Your task to perform on an android device: Add "panasonic triple a" to the cart on walmart.com Image 0: 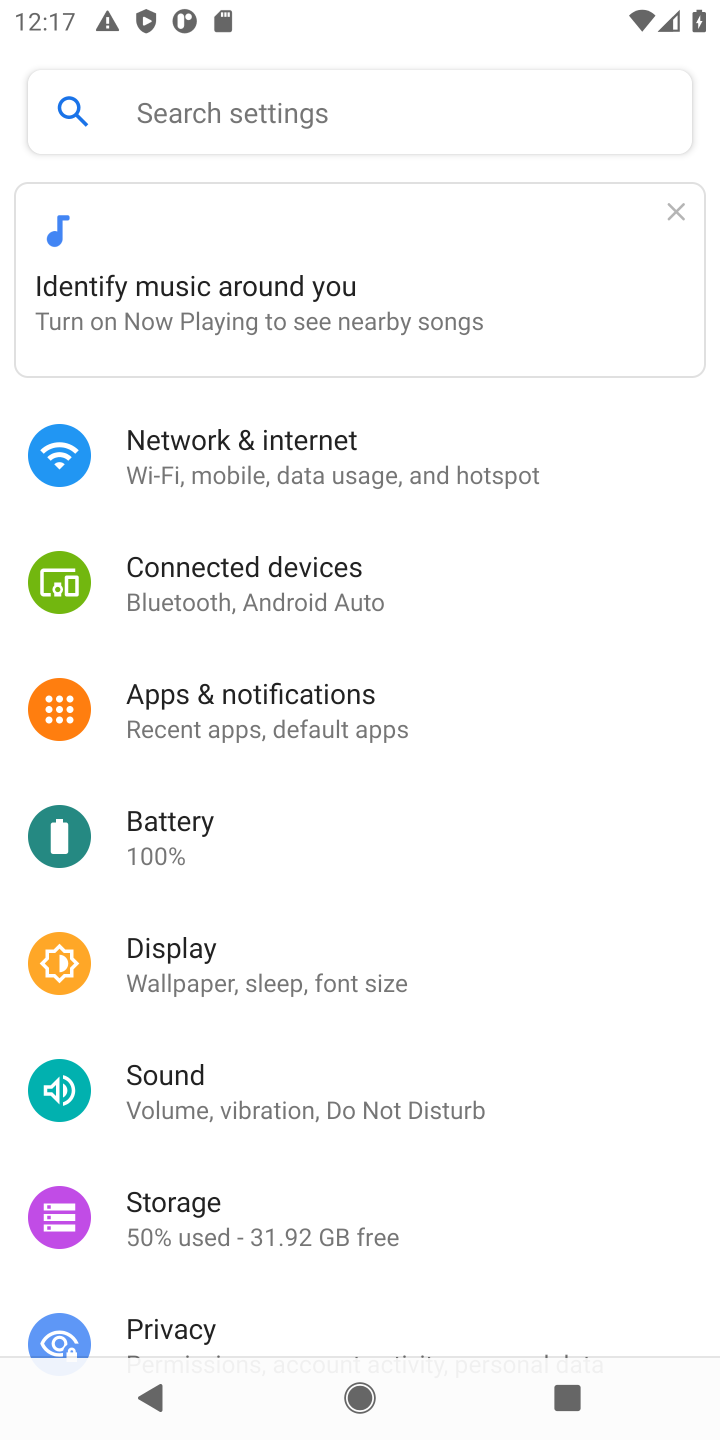
Step 0: press home button
Your task to perform on an android device: Add "panasonic triple a" to the cart on walmart.com Image 1: 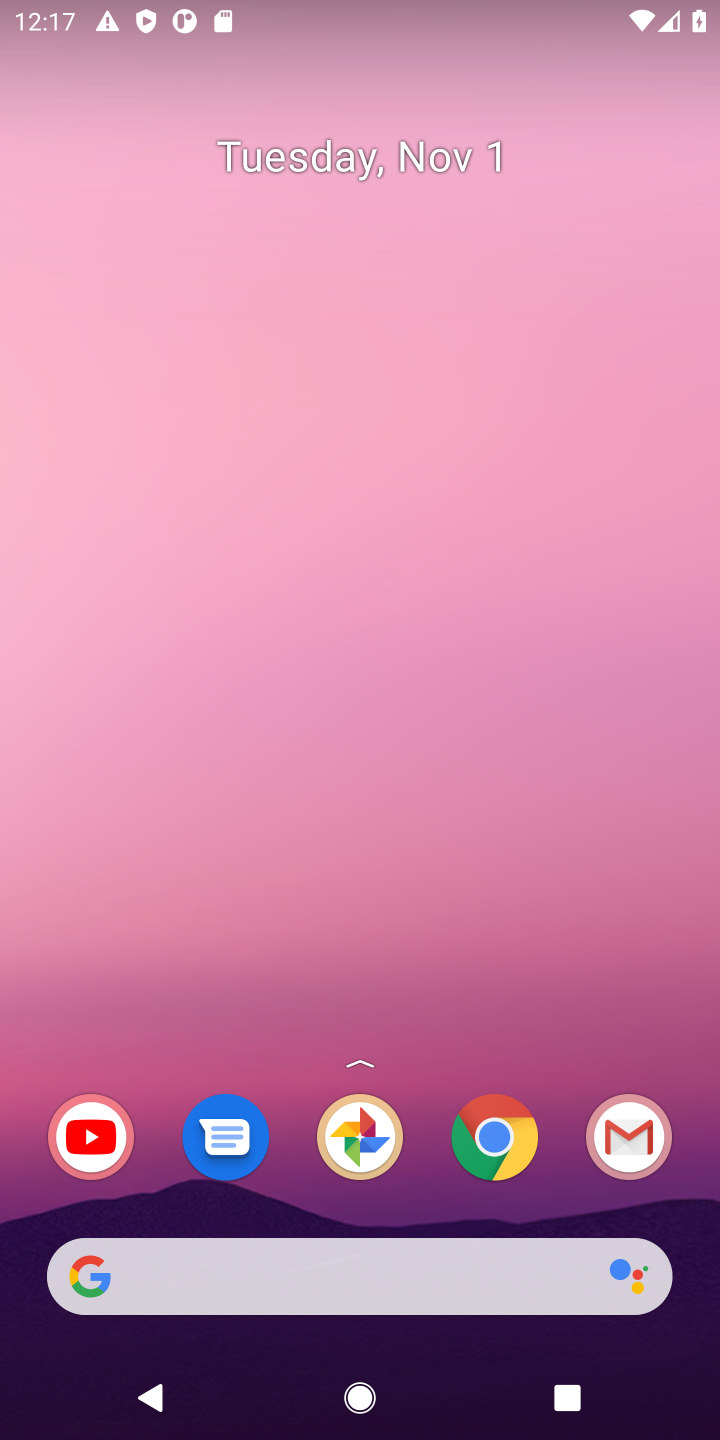
Step 1: click (493, 1139)
Your task to perform on an android device: Add "panasonic triple a" to the cart on walmart.com Image 2: 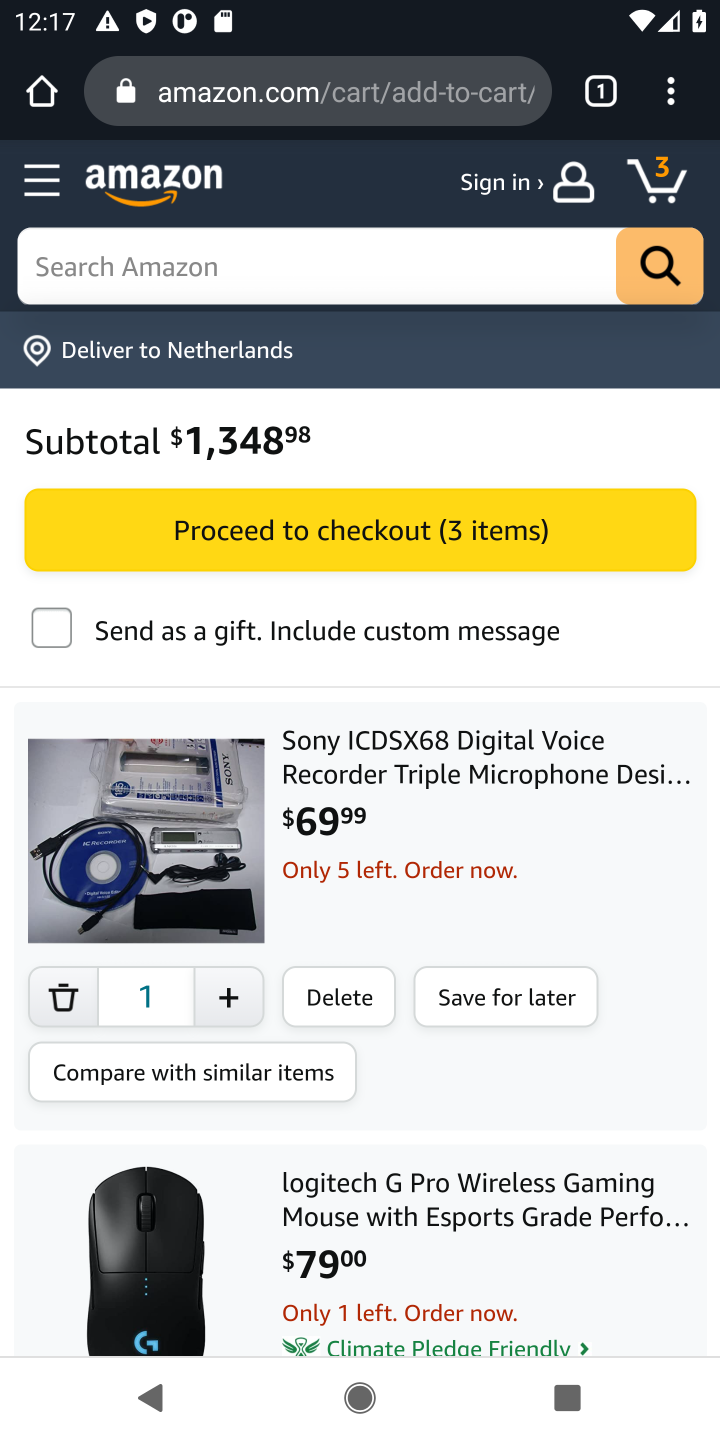
Step 2: click (339, 102)
Your task to perform on an android device: Add "panasonic triple a" to the cart on walmart.com Image 3: 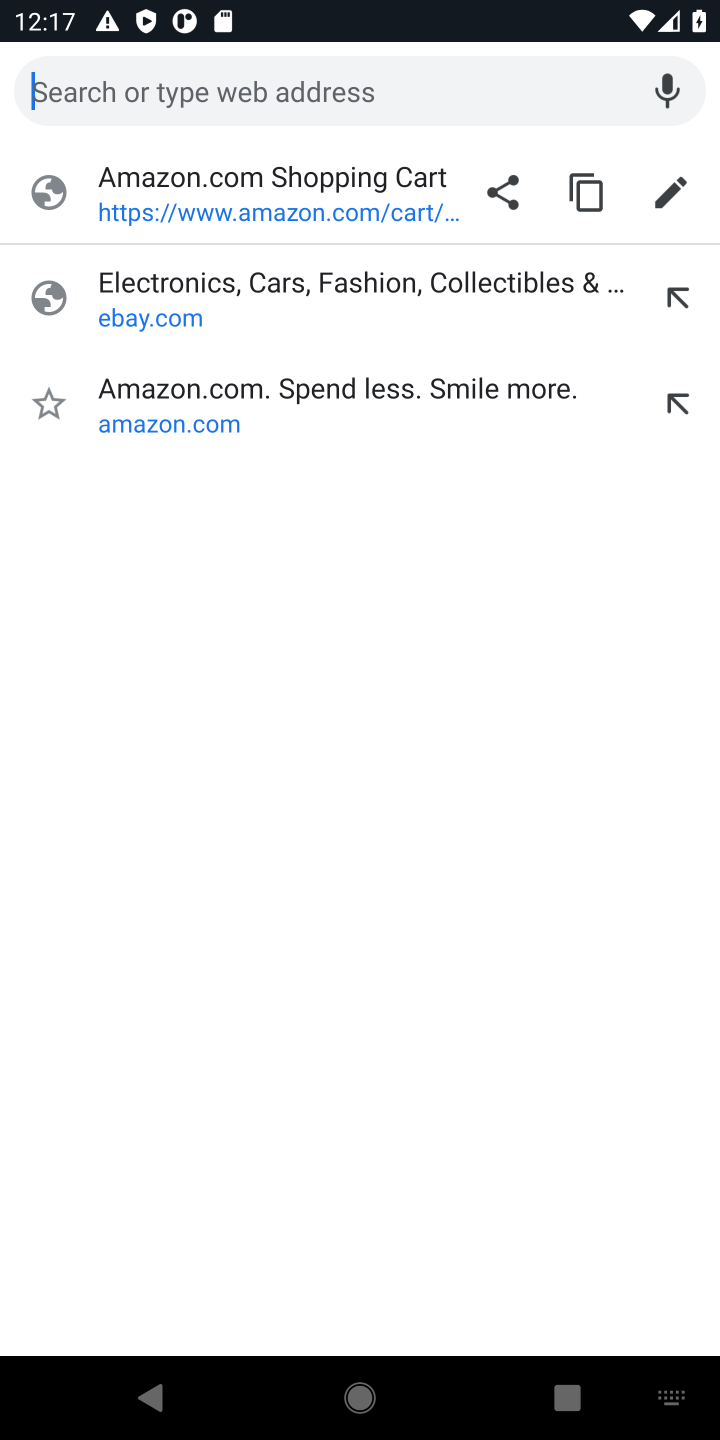
Step 3: type "walmart.com"
Your task to perform on an android device: Add "panasonic triple a" to the cart on walmart.com Image 4: 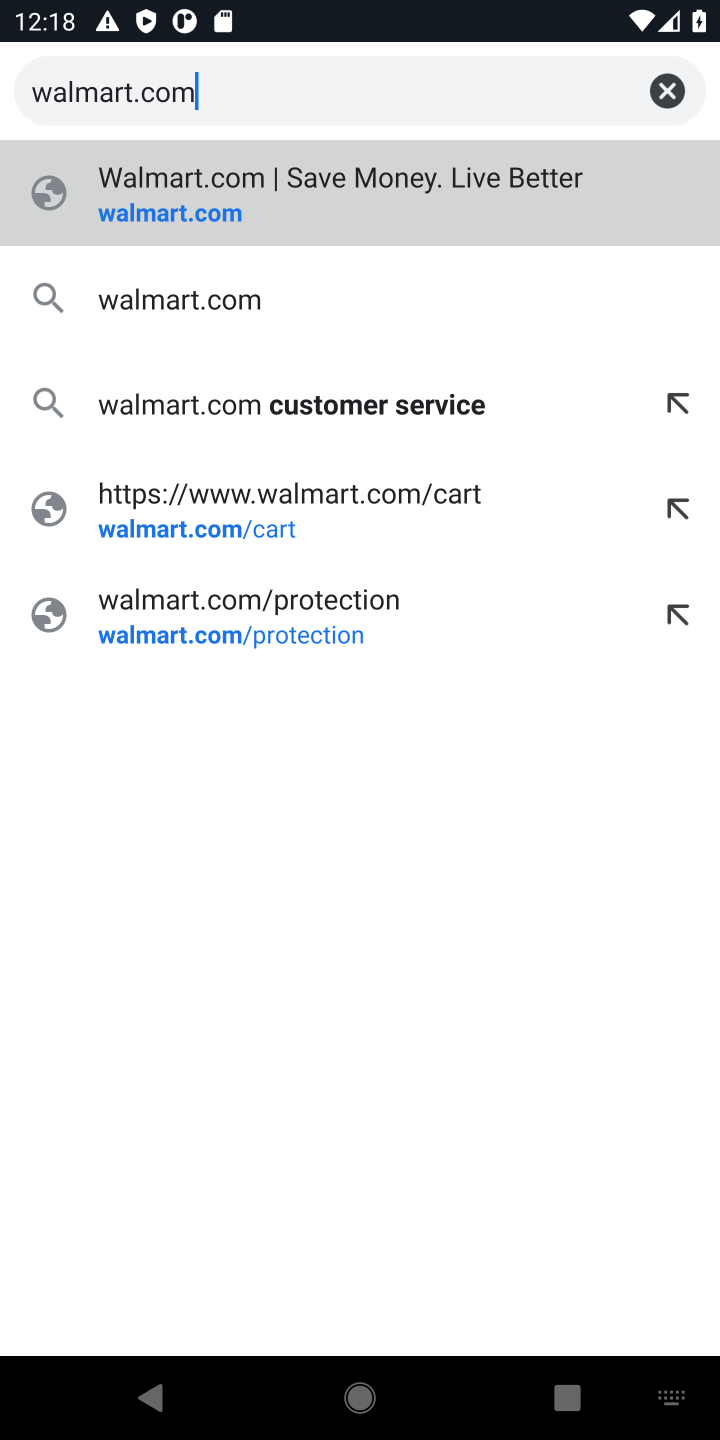
Step 4: click (163, 299)
Your task to perform on an android device: Add "panasonic triple a" to the cart on walmart.com Image 5: 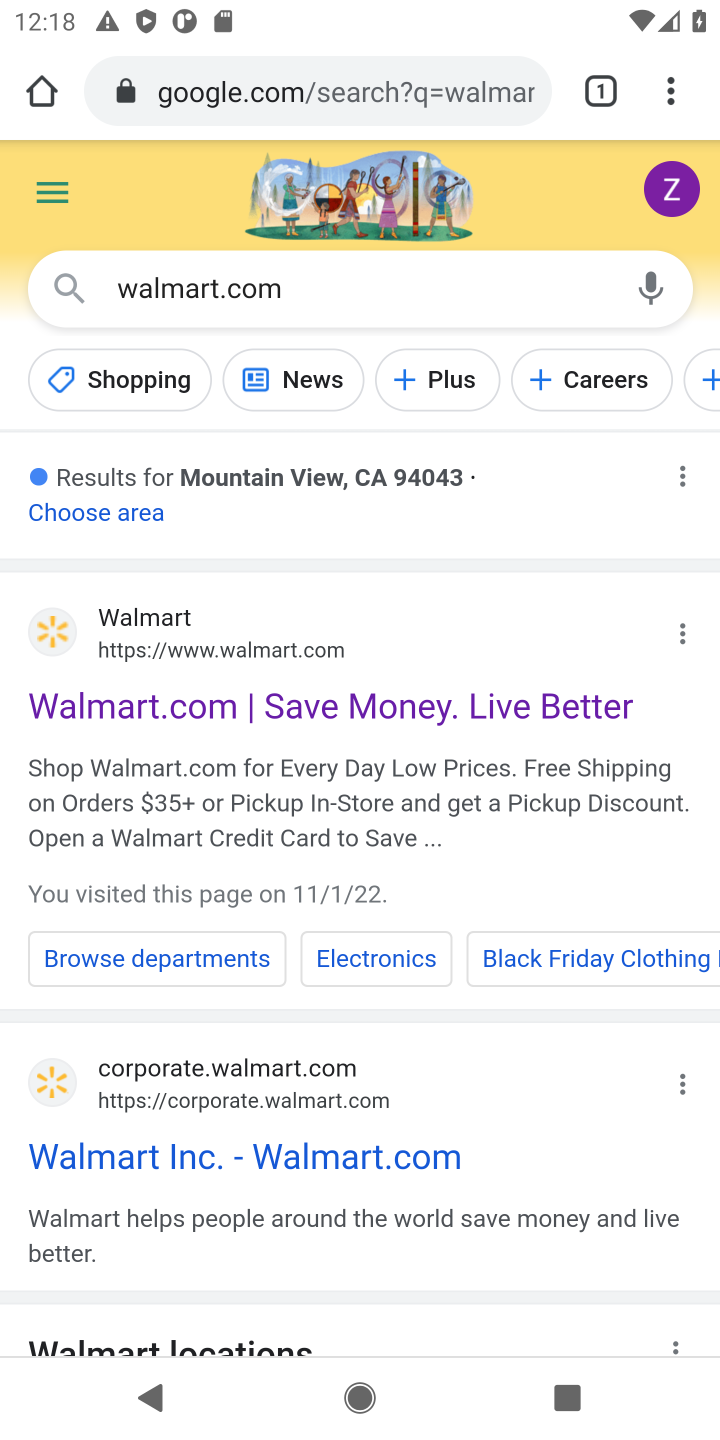
Step 5: click (208, 689)
Your task to perform on an android device: Add "panasonic triple a" to the cart on walmart.com Image 6: 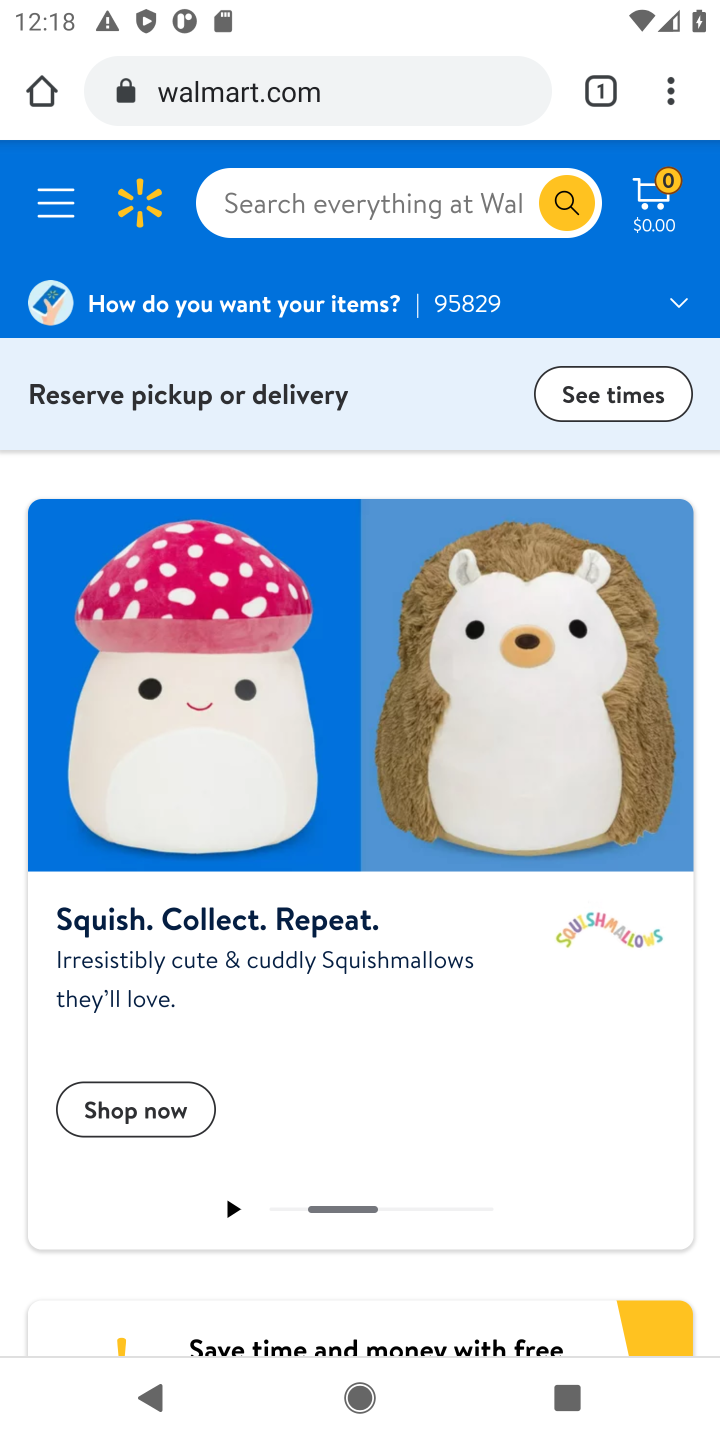
Step 6: click (326, 209)
Your task to perform on an android device: Add "panasonic triple a" to the cart on walmart.com Image 7: 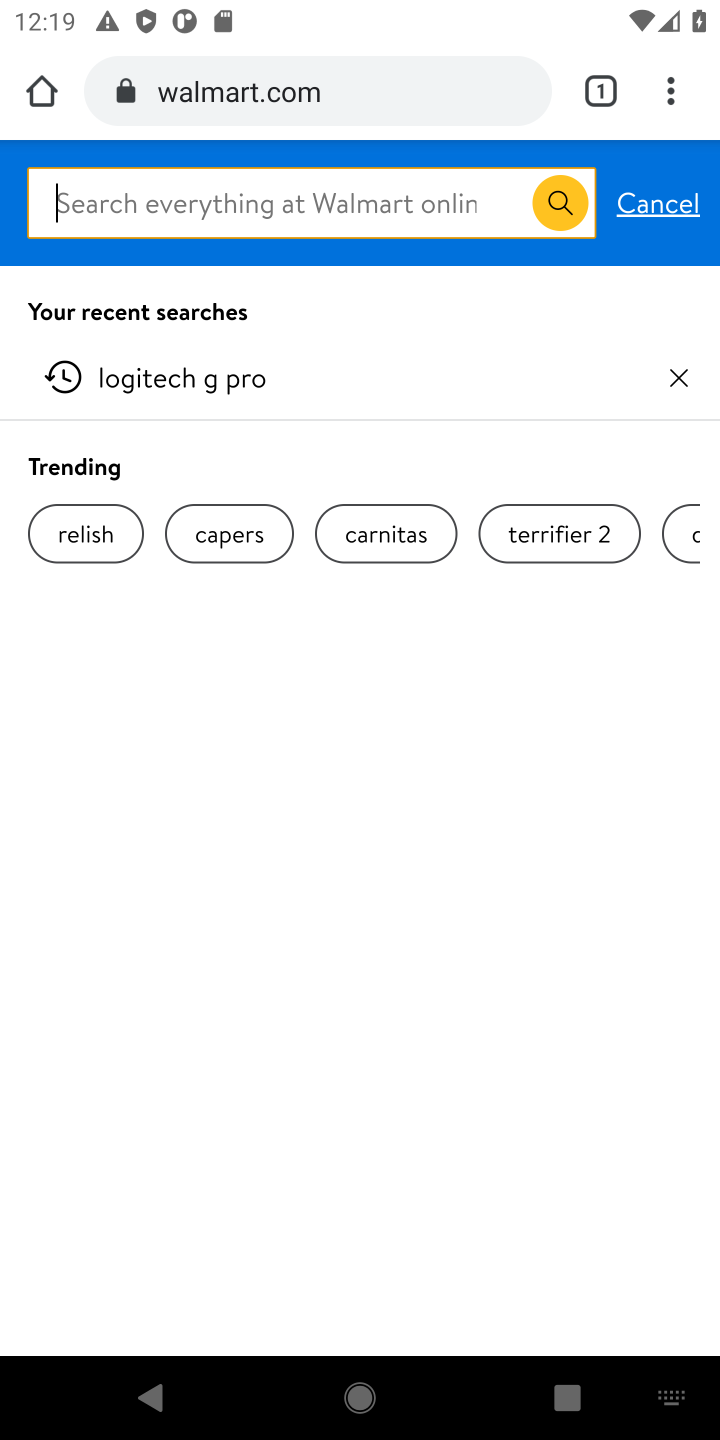
Step 7: type "panasonic triple a"
Your task to perform on an android device: Add "panasonic triple a" to the cart on walmart.com Image 8: 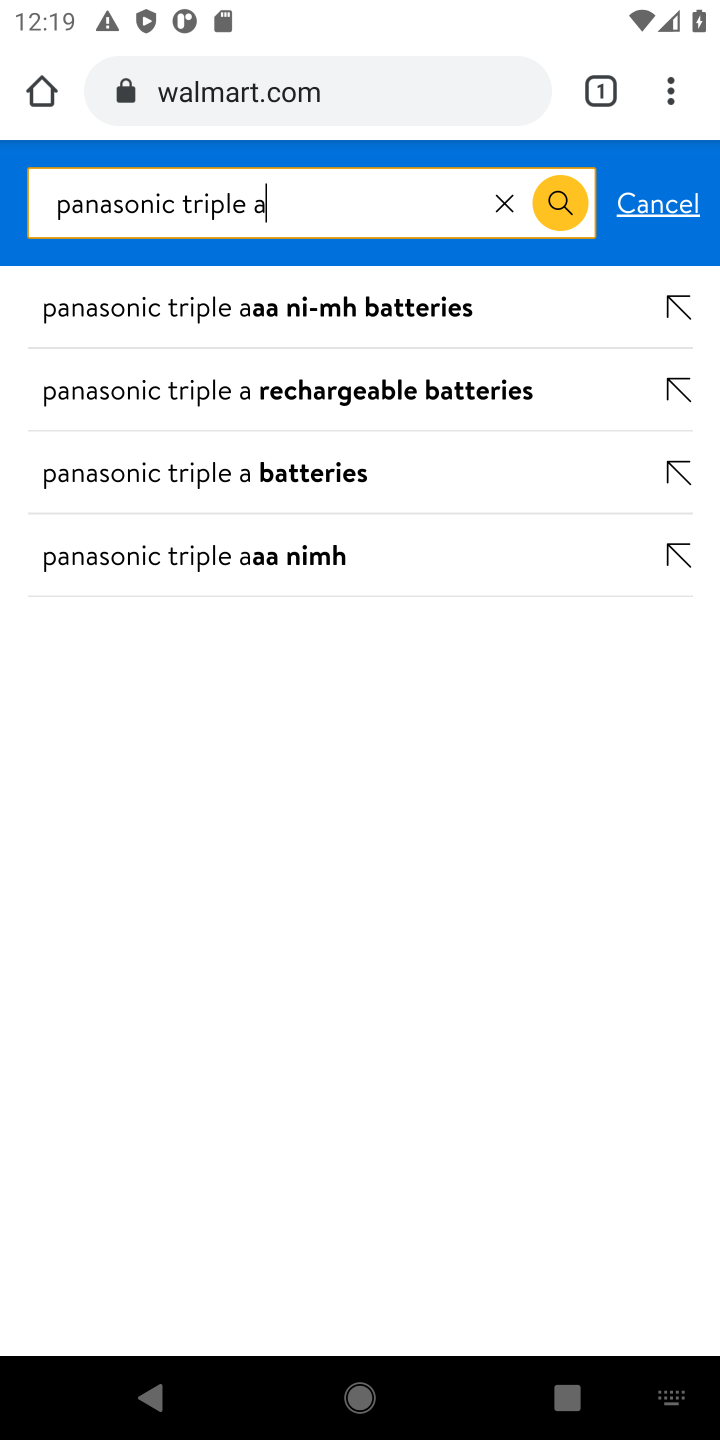
Step 8: click (562, 208)
Your task to perform on an android device: Add "panasonic triple a" to the cart on walmart.com Image 9: 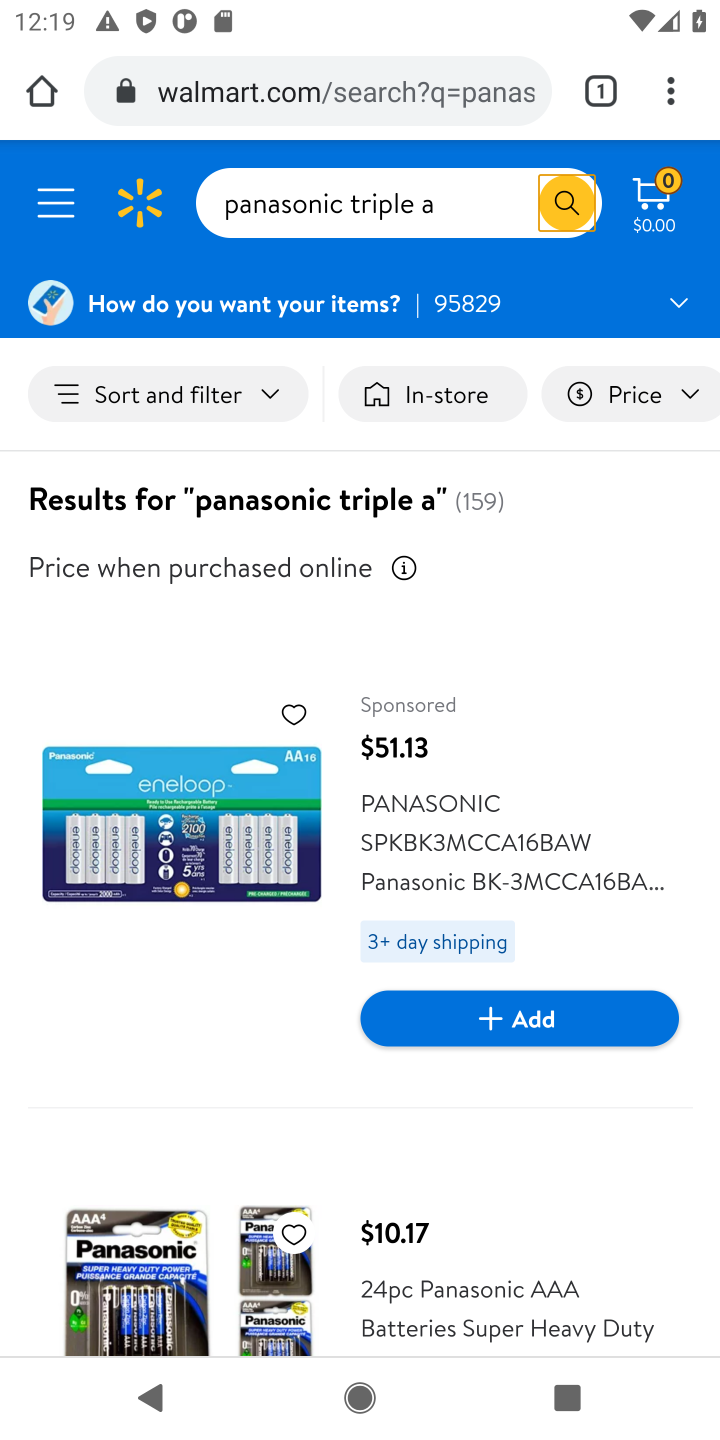
Step 9: click (533, 1022)
Your task to perform on an android device: Add "panasonic triple a" to the cart on walmart.com Image 10: 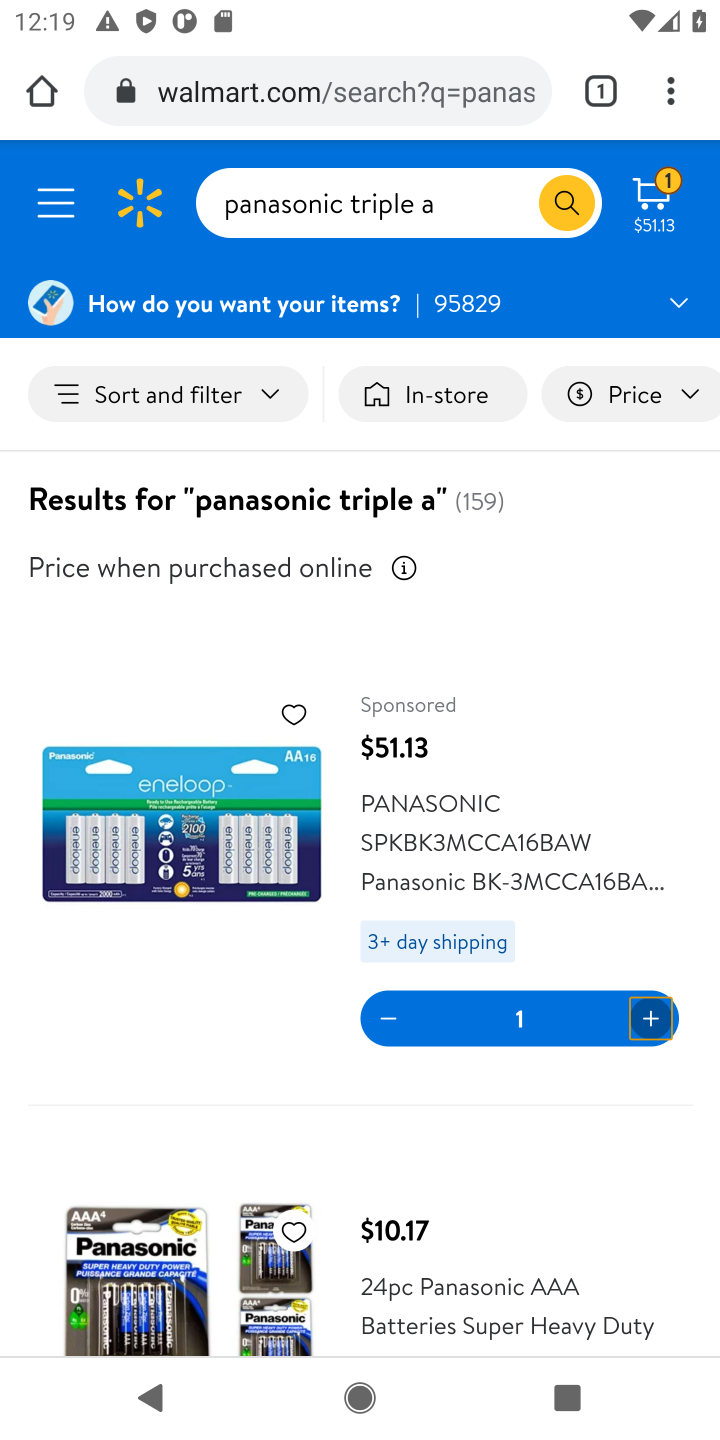
Step 10: task complete